Your task to perform on an android device: Go to wifi settings Image 0: 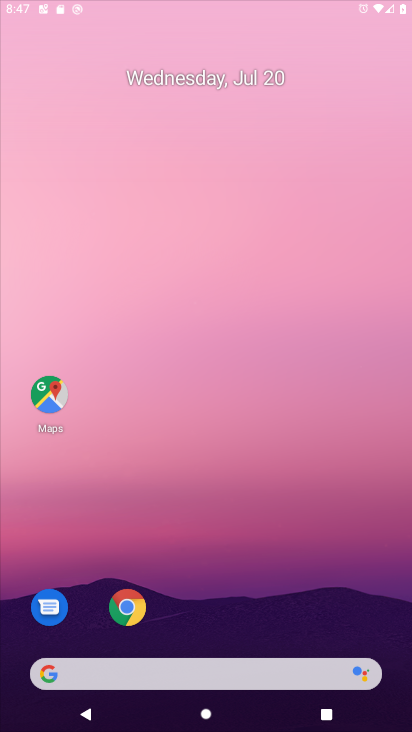
Step 0: press home button
Your task to perform on an android device: Go to wifi settings Image 1: 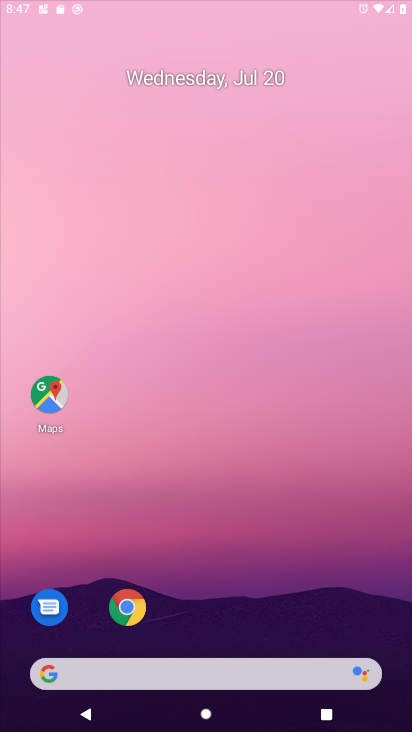
Step 1: drag from (204, 651) to (239, 173)
Your task to perform on an android device: Go to wifi settings Image 2: 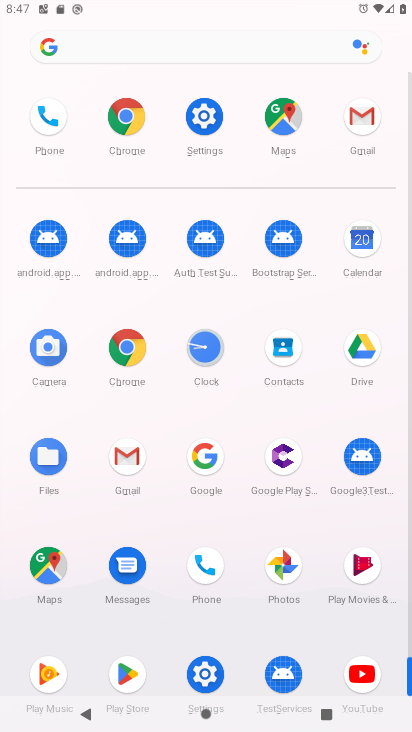
Step 2: click (201, 113)
Your task to perform on an android device: Go to wifi settings Image 3: 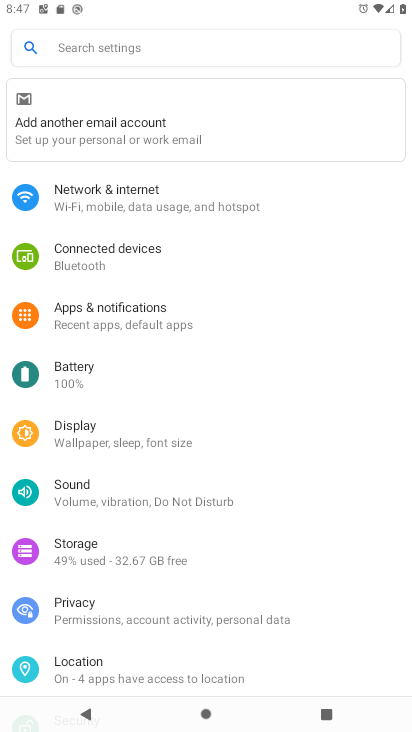
Step 3: click (144, 192)
Your task to perform on an android device: Go to wifi settings Image 4: 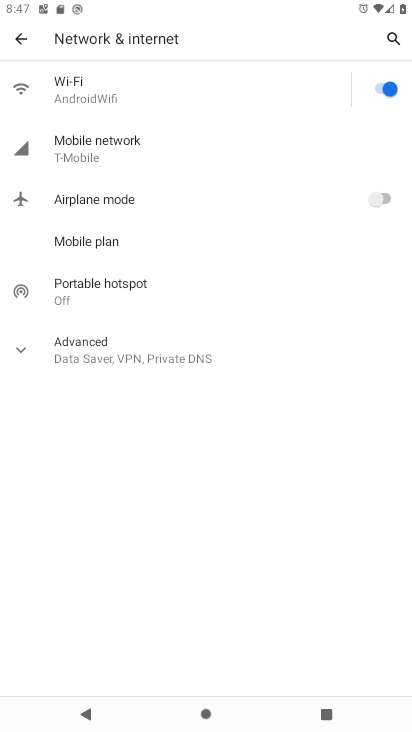
Step 4: click (188, 94)
Your task to perform on an android device: Go to wifi settings Image 5: 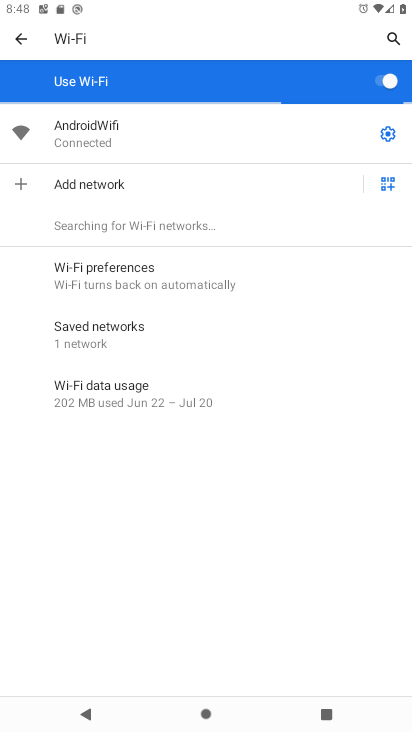
Step 5: task complete